Your task to perform on an android device: open app "Google Chat" (install if not already installed) Image 0: 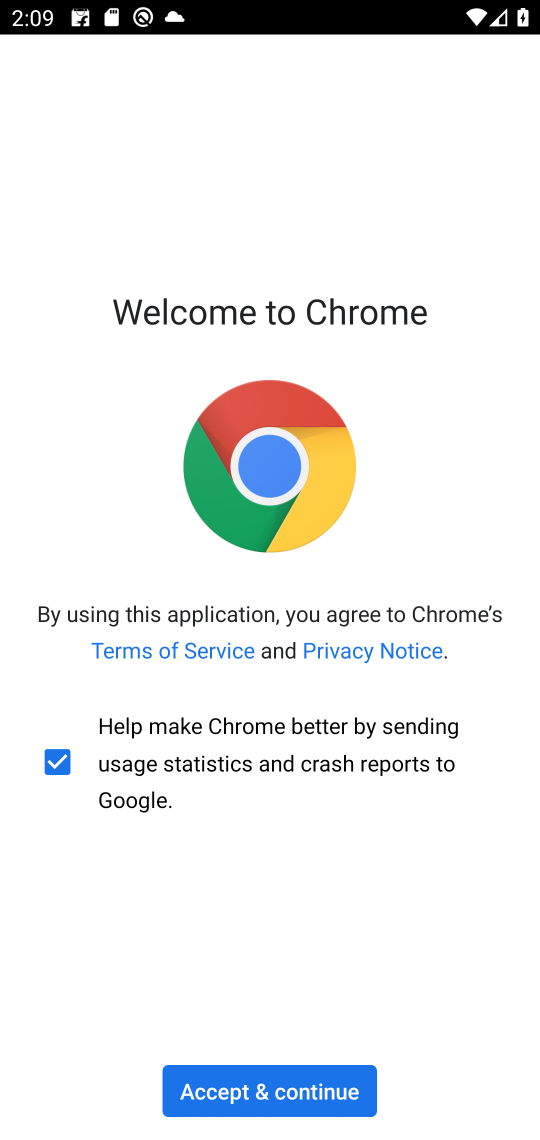
Step 0: press home button
Your task to perform on an android device: open app "Google Chat" (install if not already installed) Image 1: 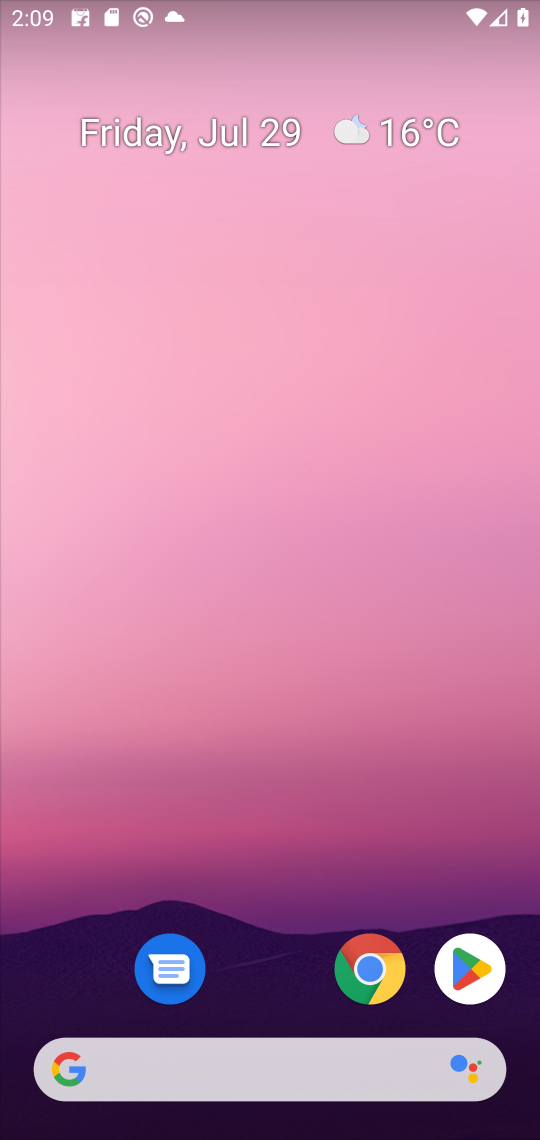
Step 1: click (458, 967)
Your task to perform on an android device: open app "Google Chat" (install if not already installed) Image 2: 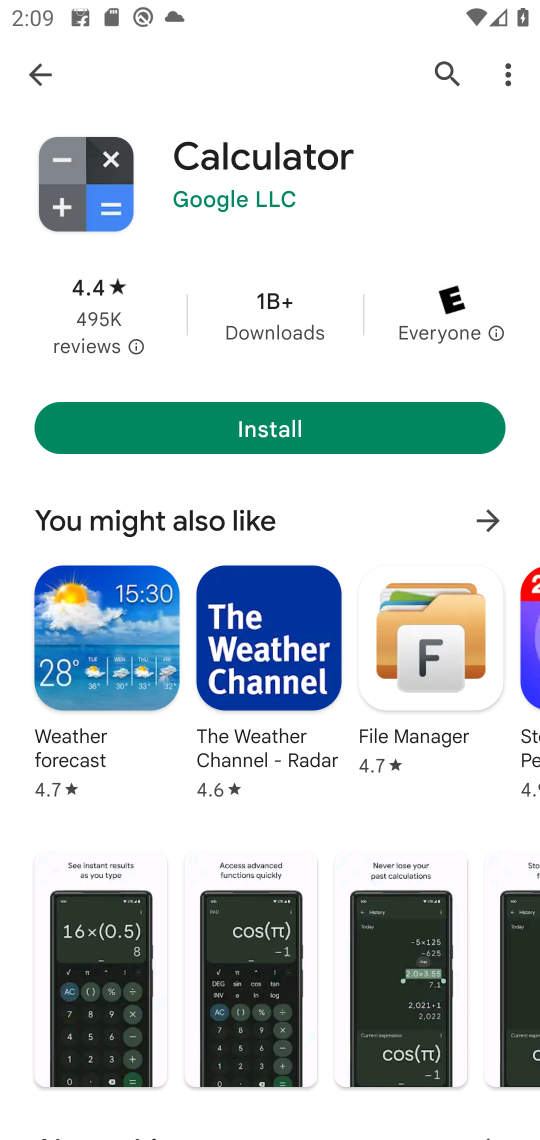
Step 2: click (436, 75)
Your task to perform on an android device: open app "Google Chat" (install if not already installed) Image 3: 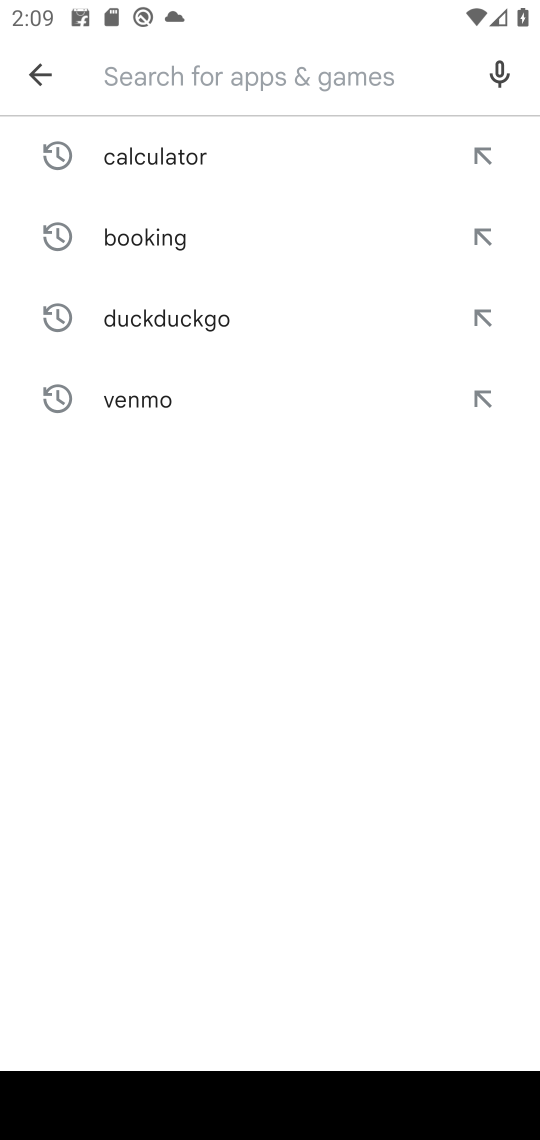
Step 3: type "google chat"
Your task to perform on an android device: open app "Google Chat" (install if not already installed) Image 4: 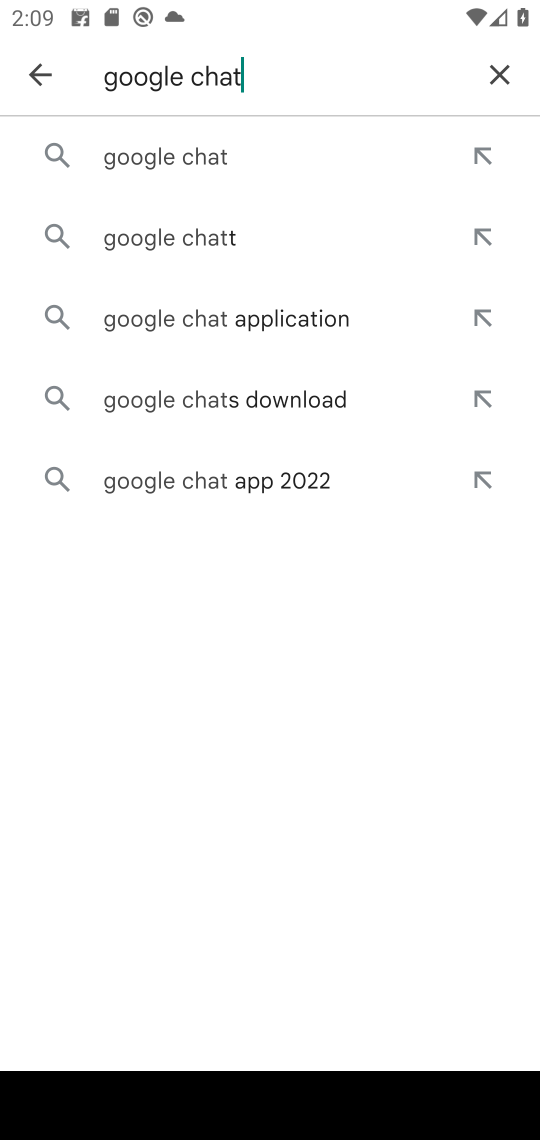
Step 4: click (226, 173)
Your task to perform on an android device: open app "Google Chat" (install if not already installed) Image 5: 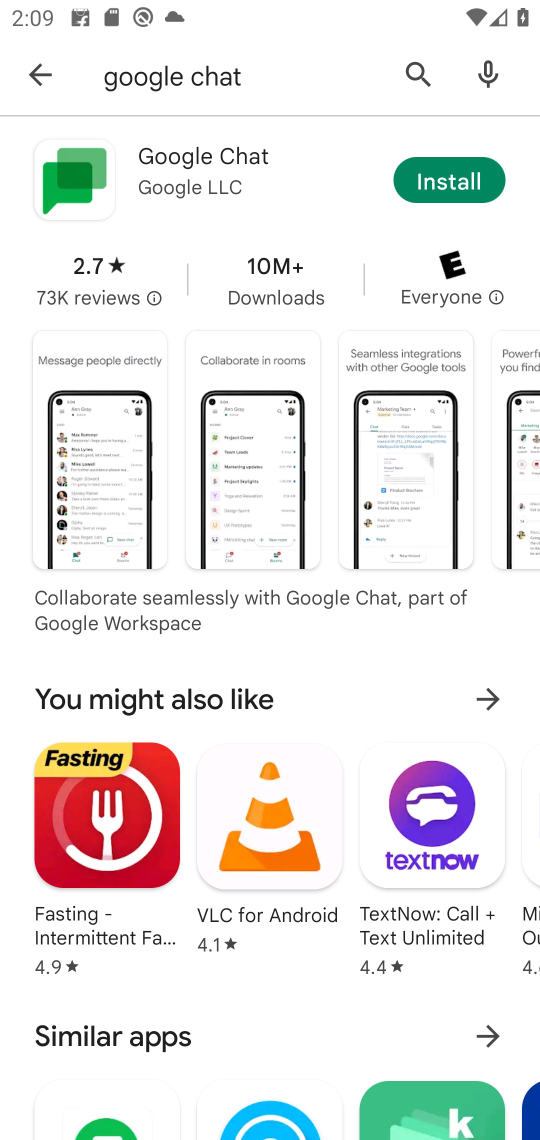
Step 5: click (417, 183)
Your task to perform on an android device: open app "Google Chat" (install if not already installed) Image 6: 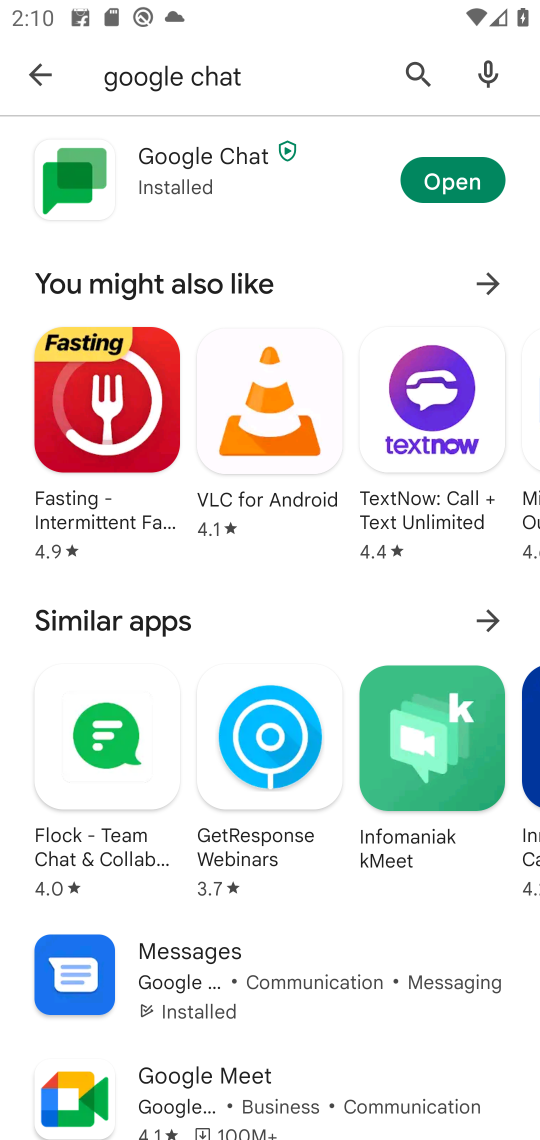
Step 6: click (428, 186)
Your task to perform on an android device: open app "Google Chat" (install if not already installed) Image 7: 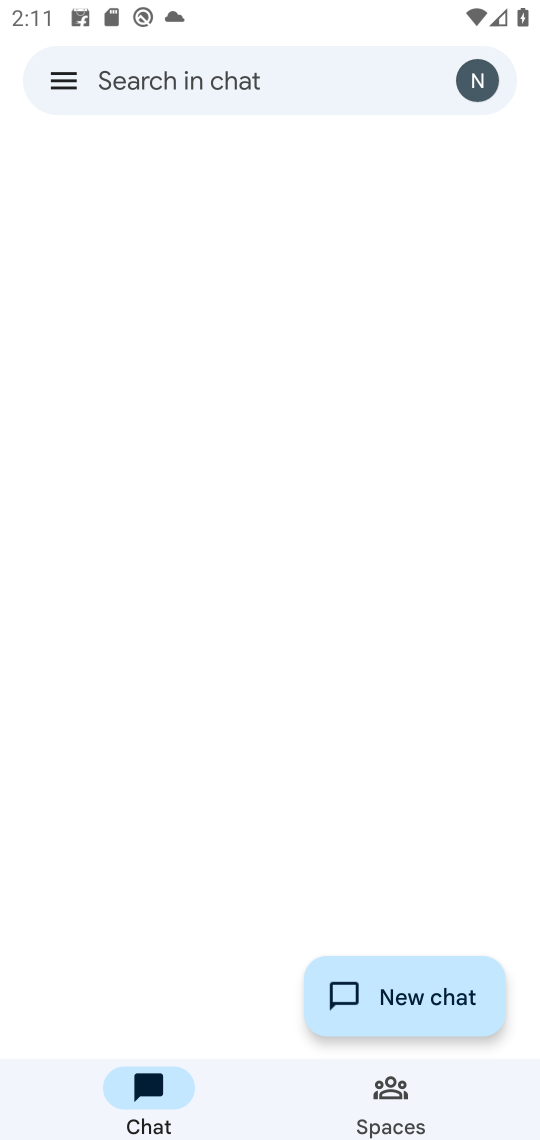
Step 7: task complete